Your task to perform on an android device: turn off wifi Image 0: 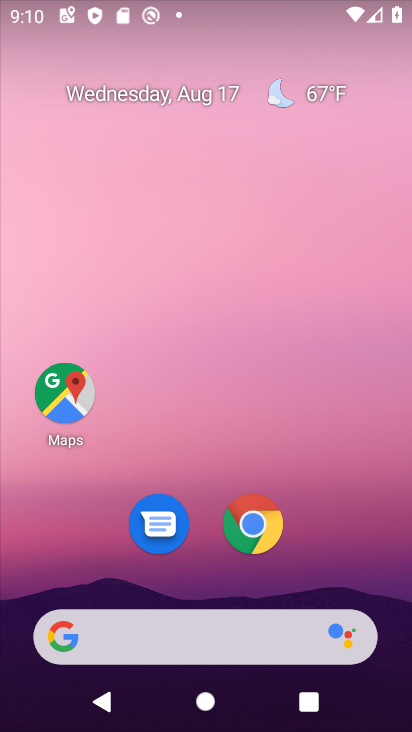
Step 0: drag from (354, 551) to (345, 24)
Your task to perform on an android device: turn off wifi Image 1: 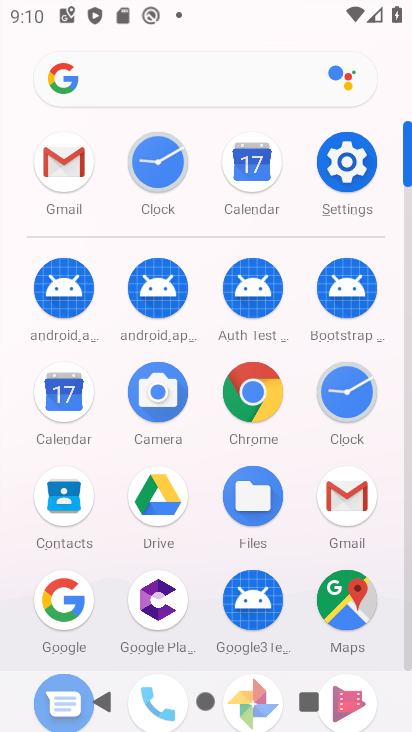
Step 1: click (345, 174)
Your task to perform on an android device: turn off wifi Image 2: 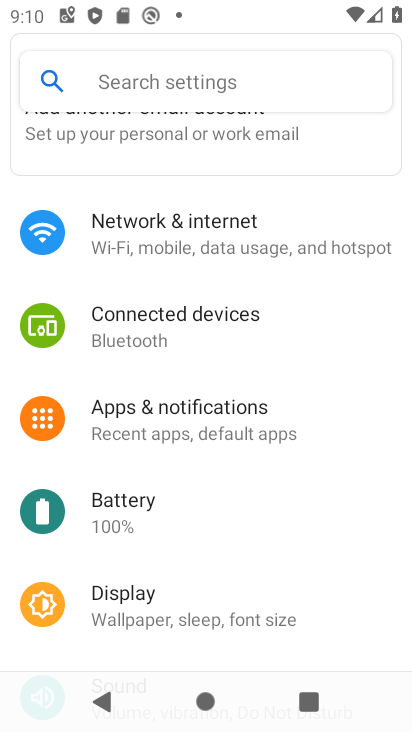
Step 2: click (270, 236)
Your task to perform on an android device: turn off wifi Image 3: 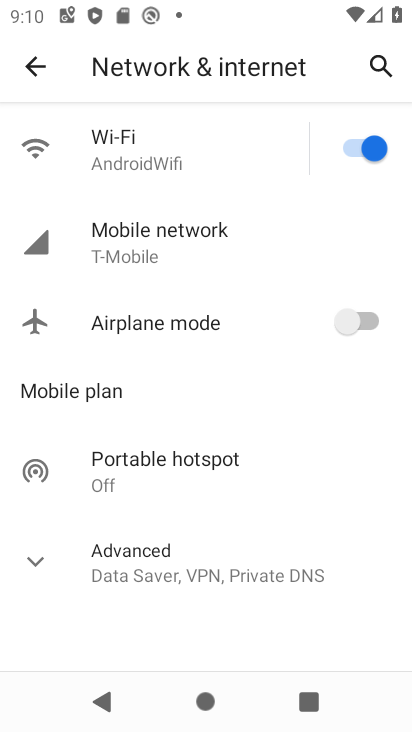
Step 3: click (358, 143)
Your task to perform on an android device: turn off wifi Image 4: 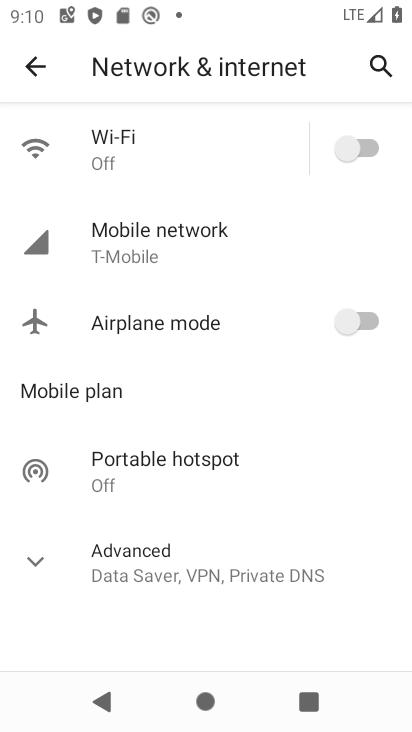
Step 4: task complete